Your task to perform on an android device: add a label to a message in the gmail app Image 0: 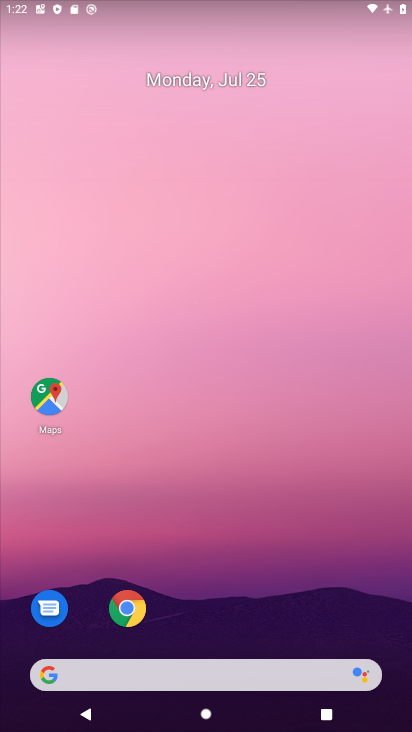
Step 0: drag from (211, 609) to (217, 122)
Your task to perform on an android device: add a label to a message in the gmail app Image 1: 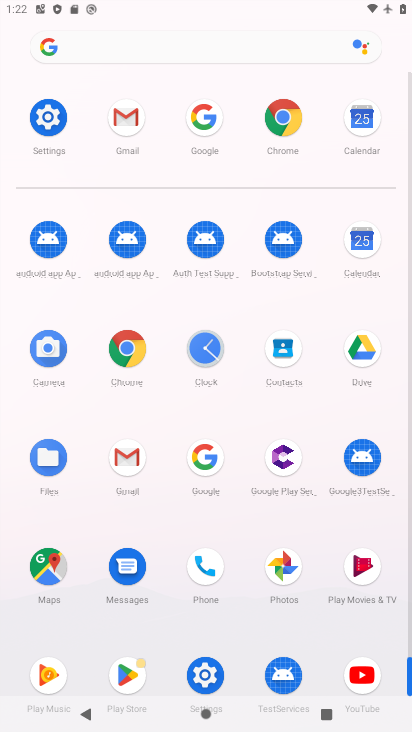
Step 1: click (139, 476)
Your task to perform on an android device: add a label to a message in the gmail app Image 2: 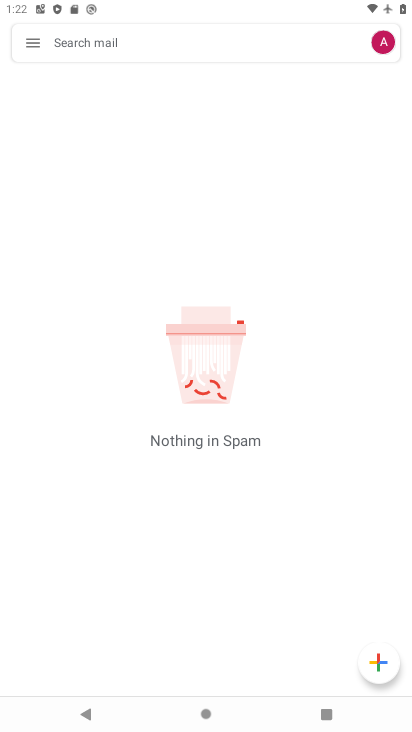
Step 2: click (38, 40)
Your task to perform on an android device: add a label to a message in the gmail app Image 3: 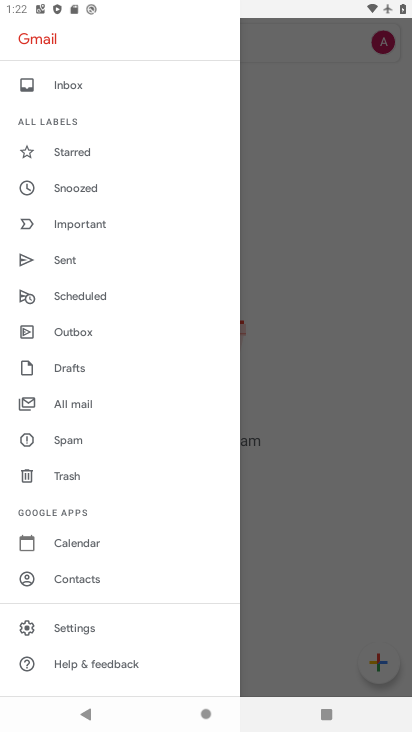
Step 3: click (77, 409)
Your task to perform on an android device: add a label to a message in the gmail app Image 4: 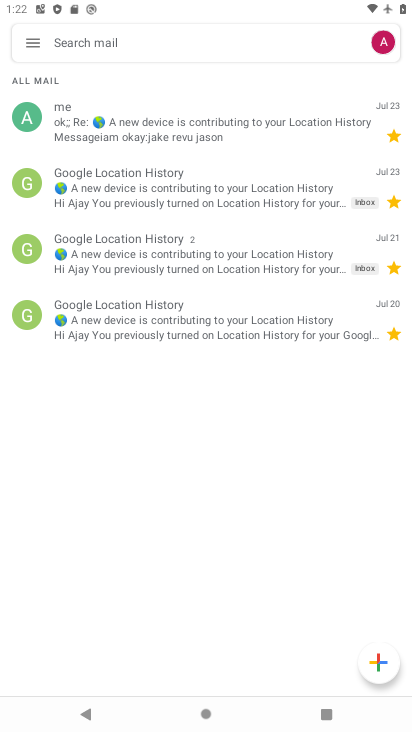
Step 4: click (137, 263)
Your task to perform on an android device: add a label to a message in the gmail app Image 5: 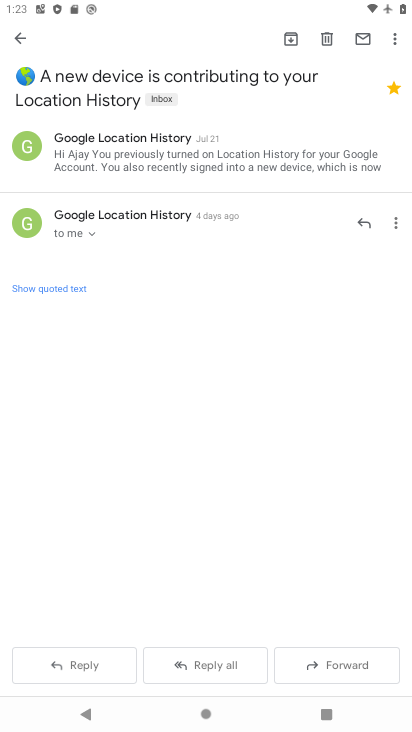
Step 5: click (392, 41)
Your task to perform on an android device: add a label to a message in the gmail app Image 6: 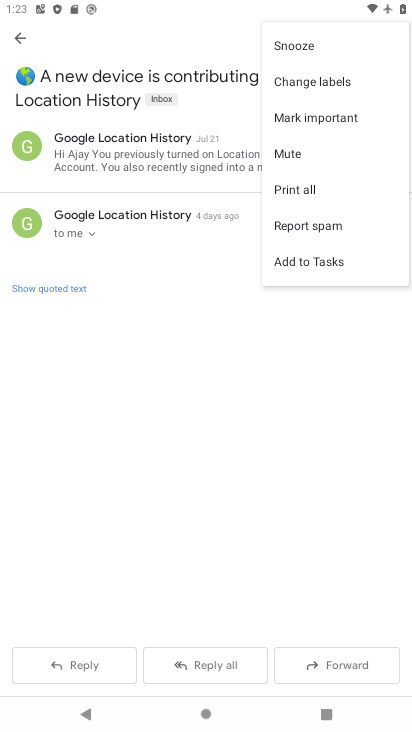
Step 6: click (317, 76)
Your task to perform on an android device: add a label to a message in the gmail app Image 7: 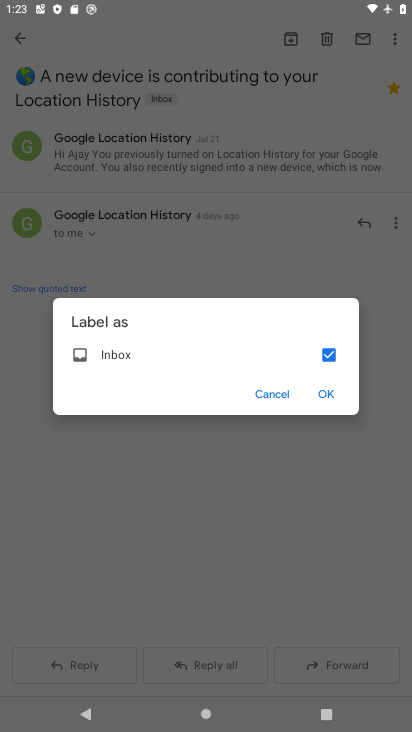
Step 7: click (324, 394)
Your task to perform on an android device: add a label to a message in the gmail app Image 8: 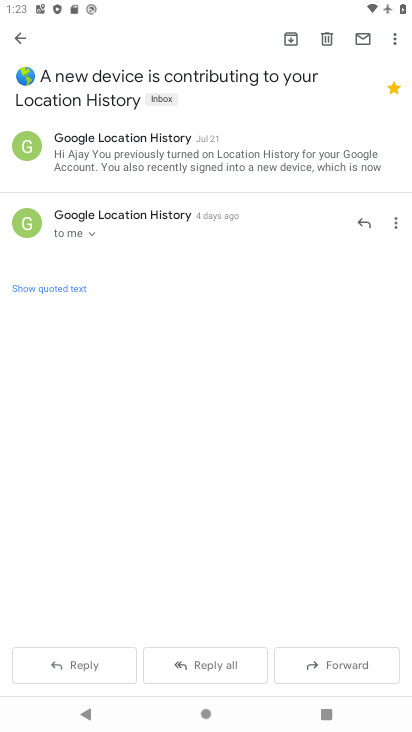
Step 8: click (388, 44)
Your task to perform on an android device: add a label to a message in the gmail app Image 9: 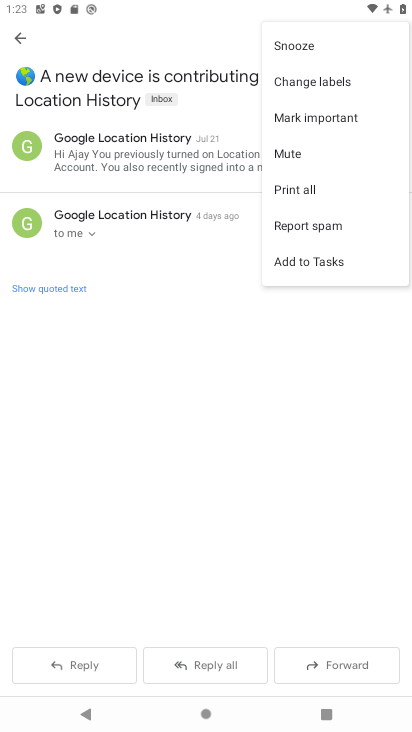
Step 9: click (355, 75)
Your task to perform on an android device: add a label to a message in the gmail app Image 10: 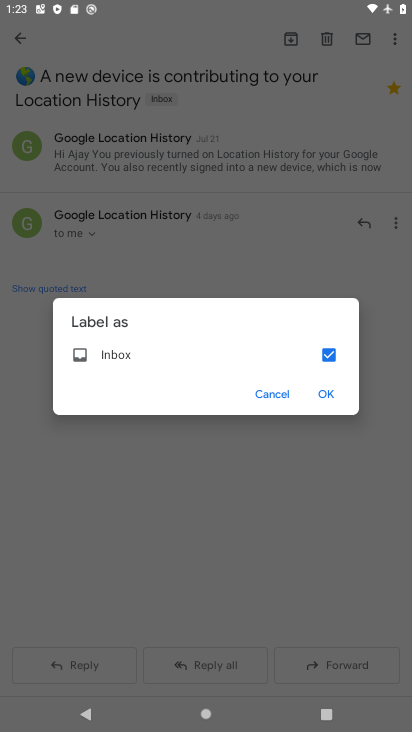
Step 10: click (329, 393)
Your task to perform on an android device: add a label to a message in the gmail app Image 11: 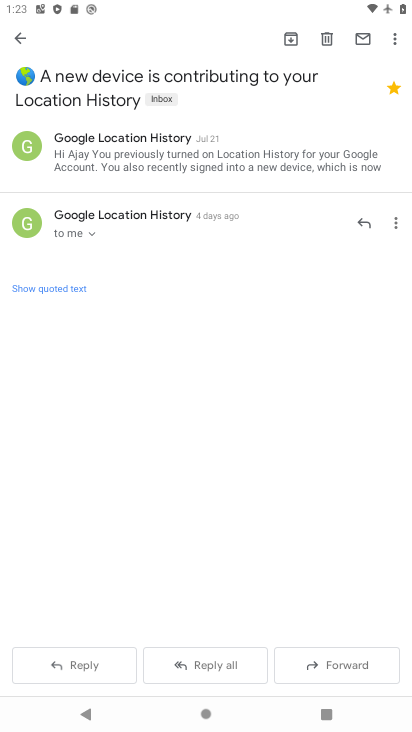
Step 11: task complete